Your task to perform on an android device: clear all cookies in the chrome app Image 0: 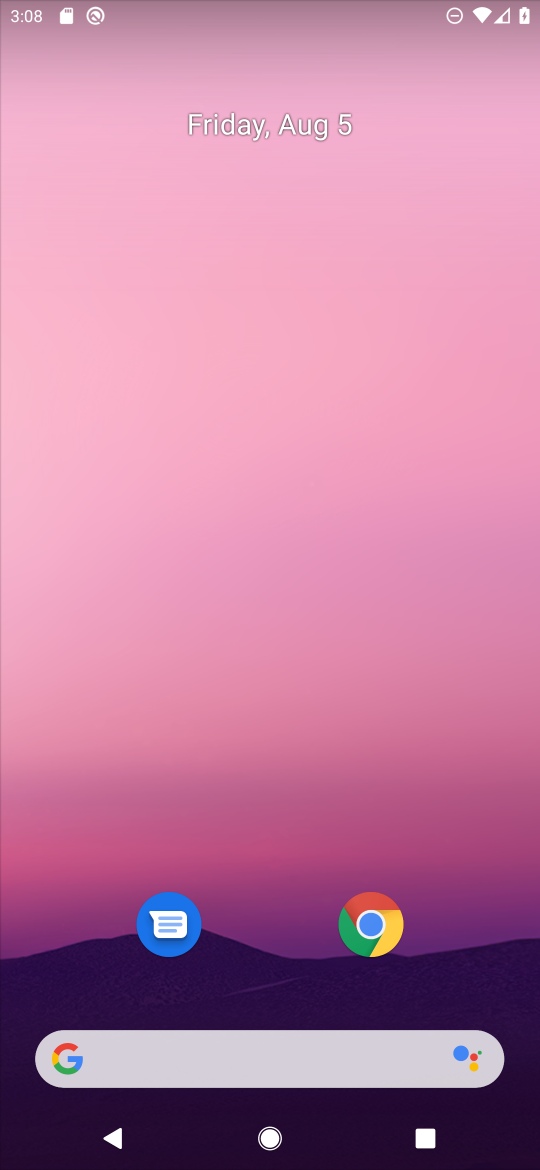
Step 0: drag from (463, 847) to (499, 168)
Your task to perform on an android device: clear all cookies in the chrome app Image 1: 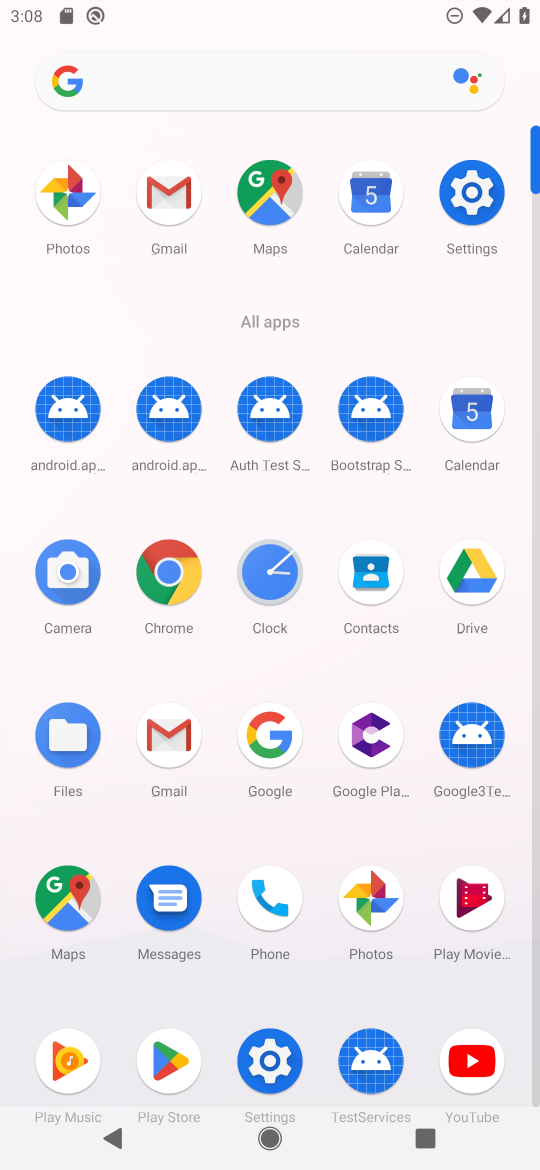
Step 1: click (165, 569)
Your task to perform on an android device: clear all cookies in the chrome app Image 2: 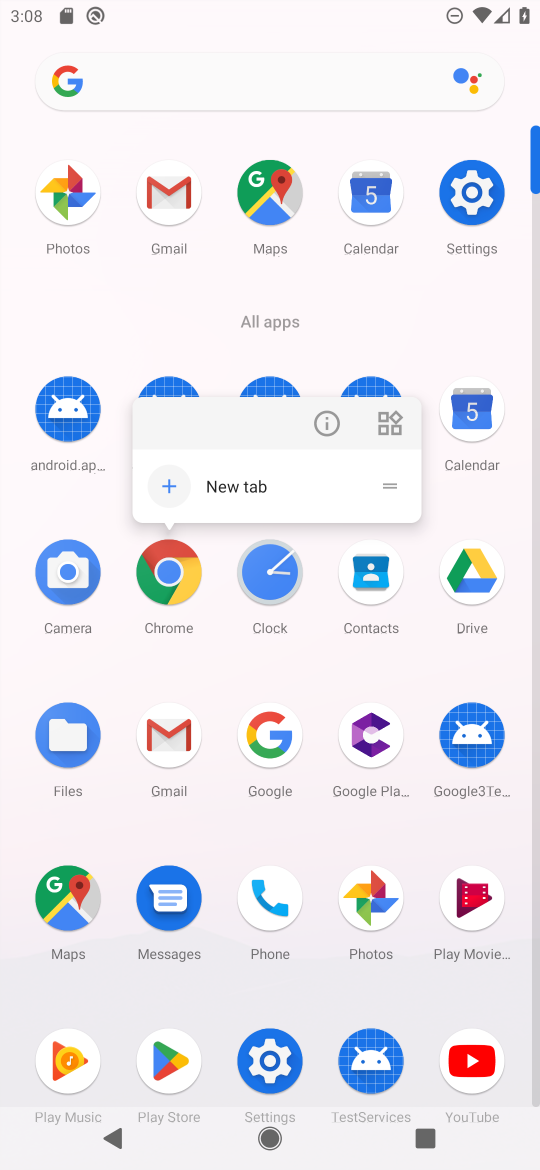
Step 2: click (164, 569)
Your task to perform on an android device: clear all cookies in the chrome app Image 3: 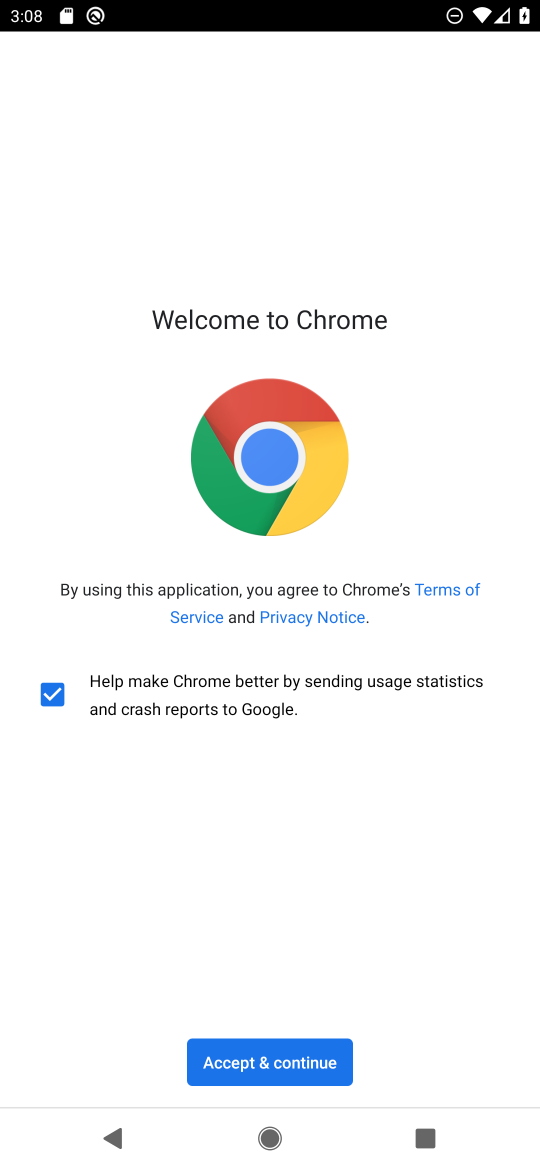
Step 3: click (265, 1066)
Your task to perform on an android device: clear all cookies in the chrome app Image 4: 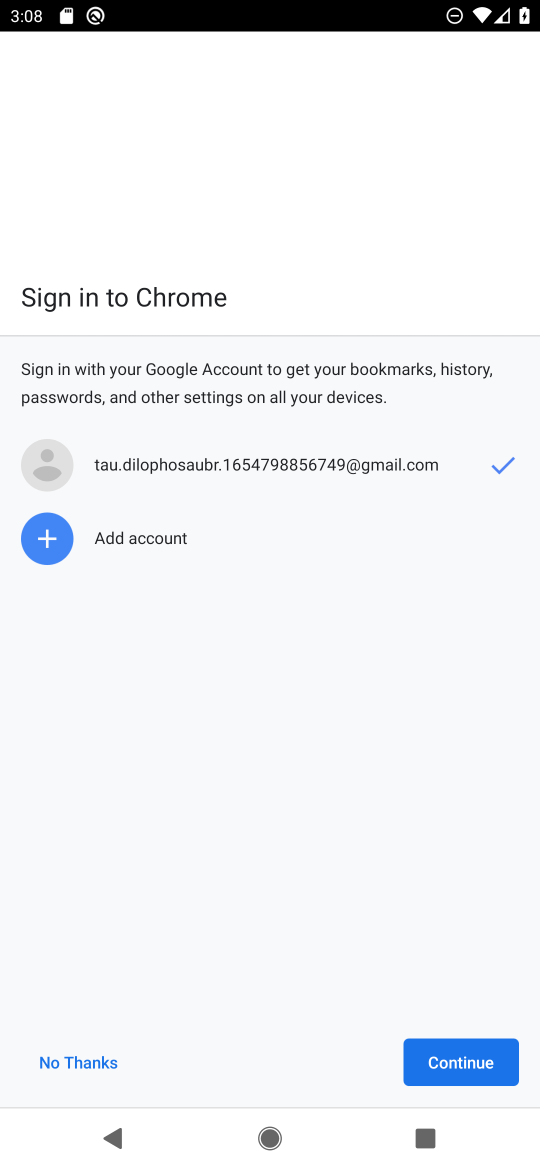
Step 4: click (500, 1058)
Your task to perform on an android device: clear all cookies in the chrome app Image 5: 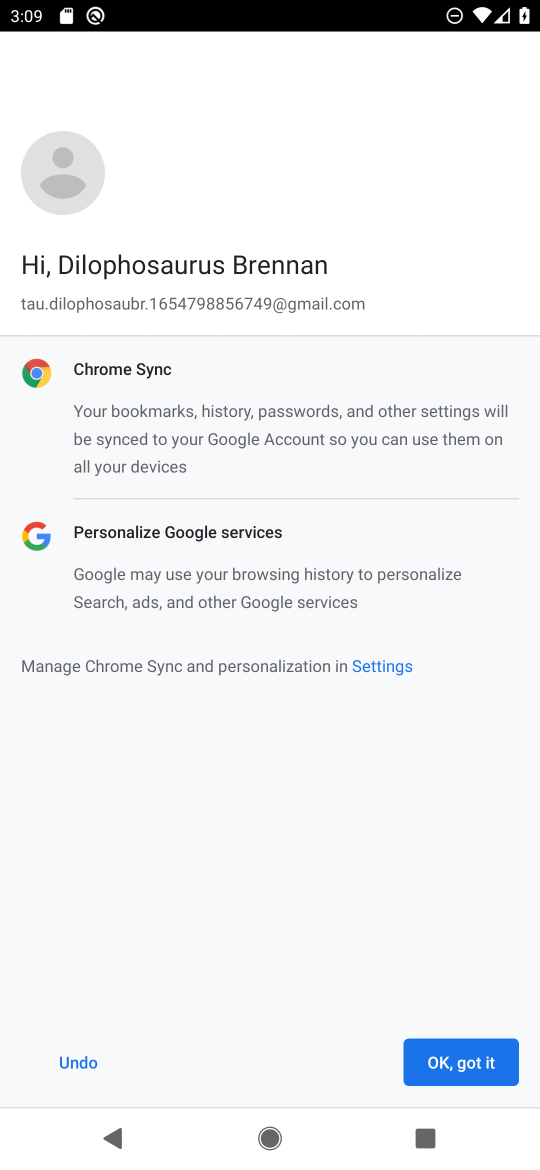
Step 5: click (500, 1058)
Your task to perform on an android device: clear all cookies in the chrome app Image 6: 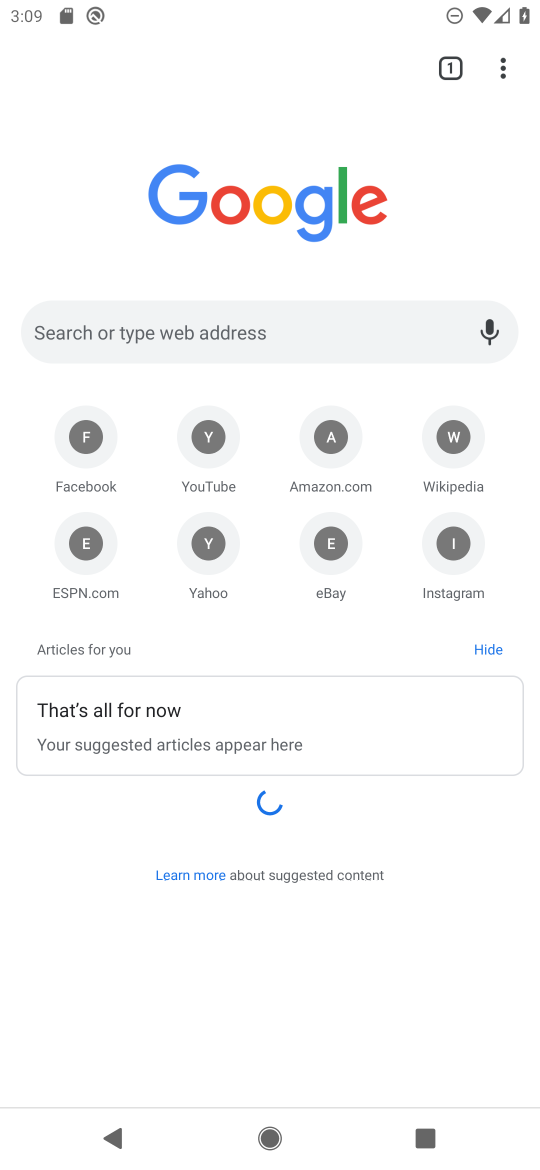
Step 6: drag from (501, 60) to (245, 379)
Your task to perform on an android device: clear all cookies in the chrome app Image 7: 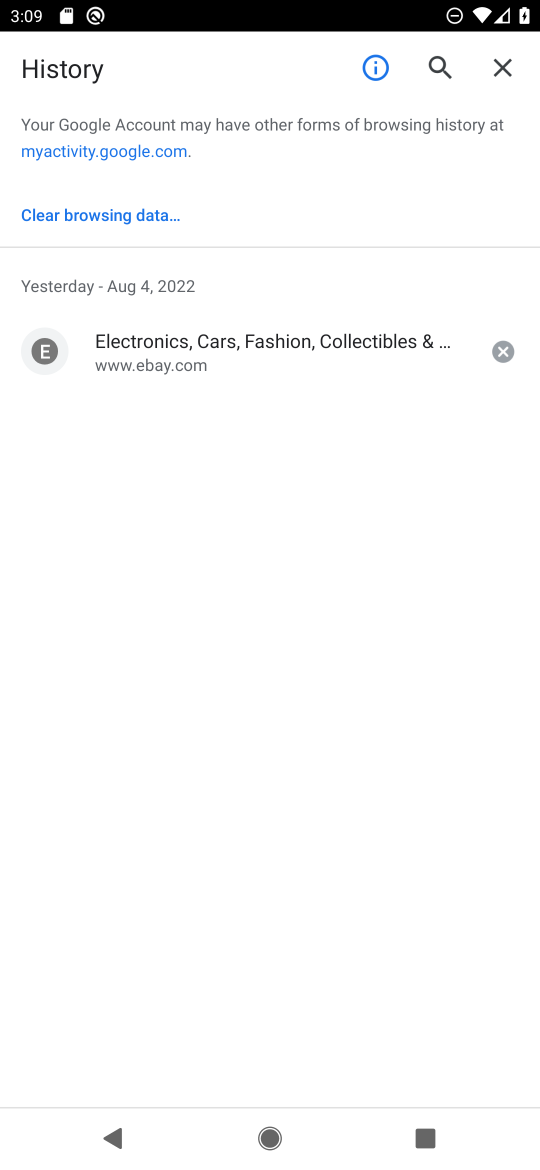
Step 7: click (127, 213)
Your task to perform on an android device: clear all cookies in the chrome app Image 8: 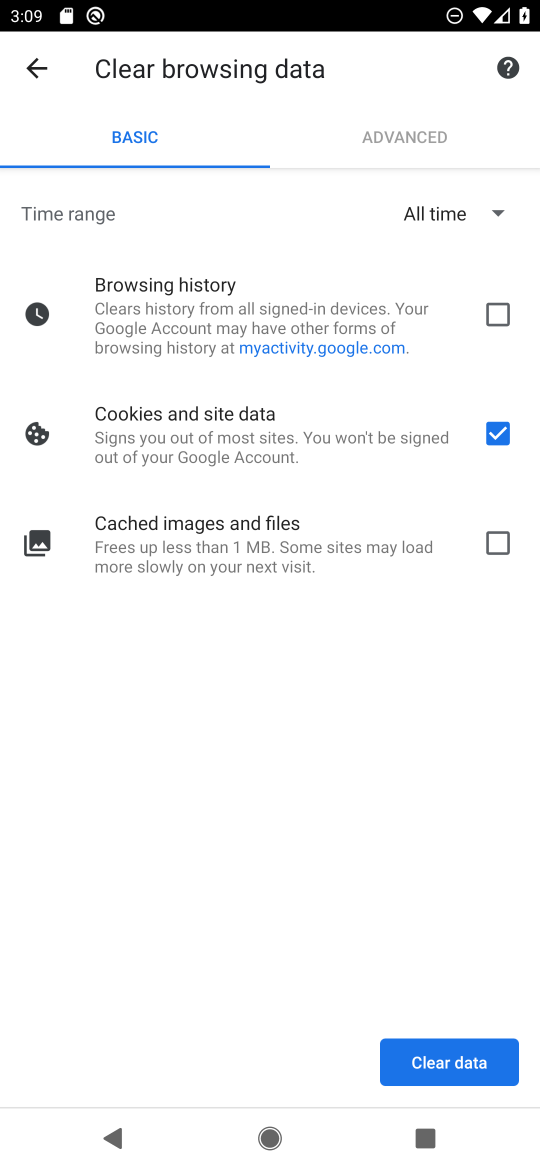
Step 8: click (506, 312)
Your task to perform on an android device: clear all cookies in the chrome app Image 9: 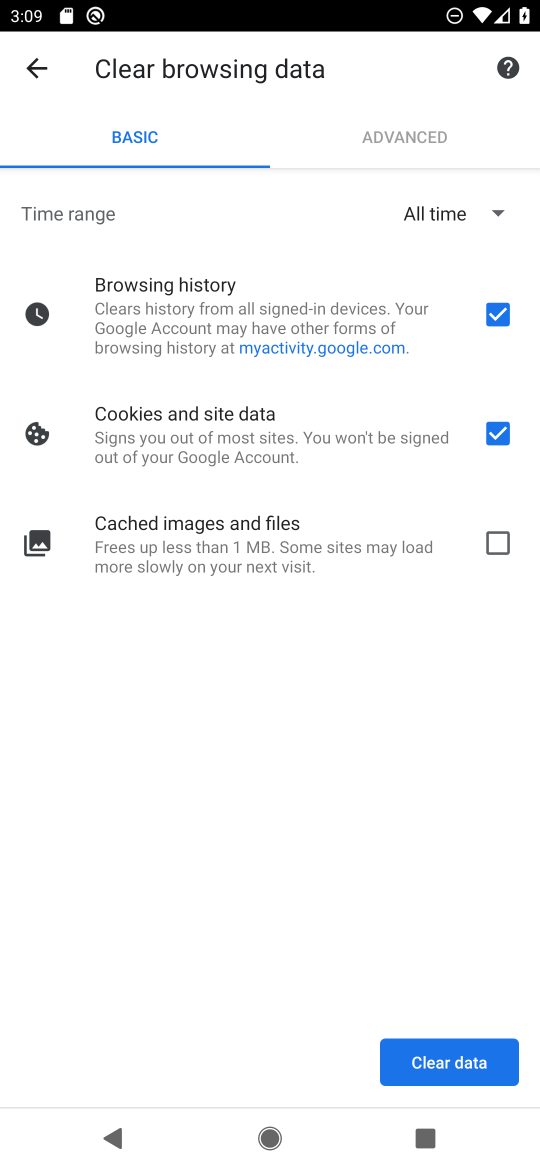
Step 9: click (503, 311)
Your task to perform on an android device: clear all cookies in the chrome app Image 10: 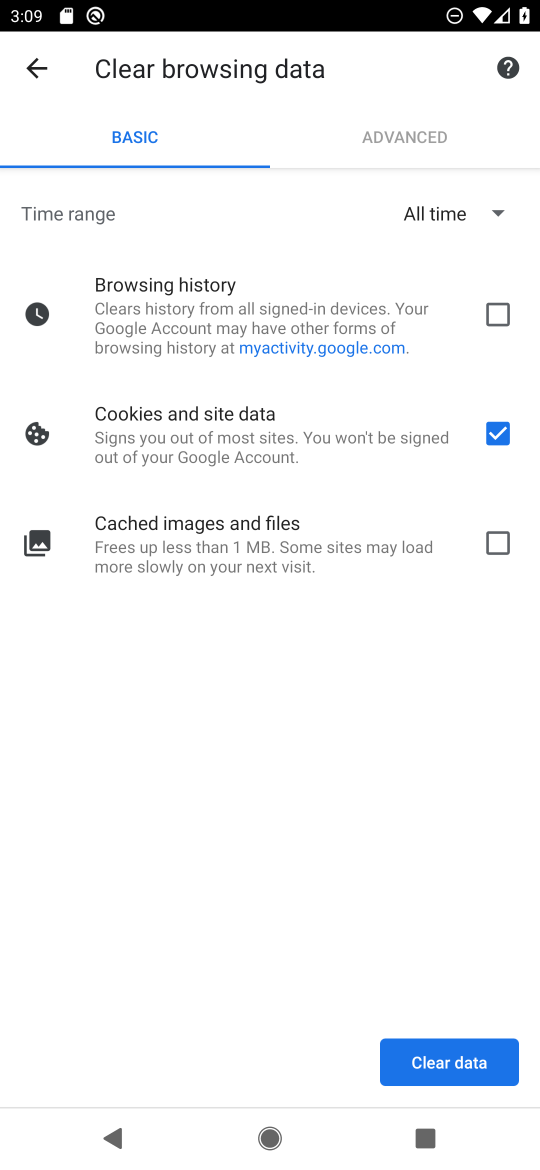
Step 10: click (484, 1062)
Your task to perform on an android device: clear all cookies in the chrome app Image 11: 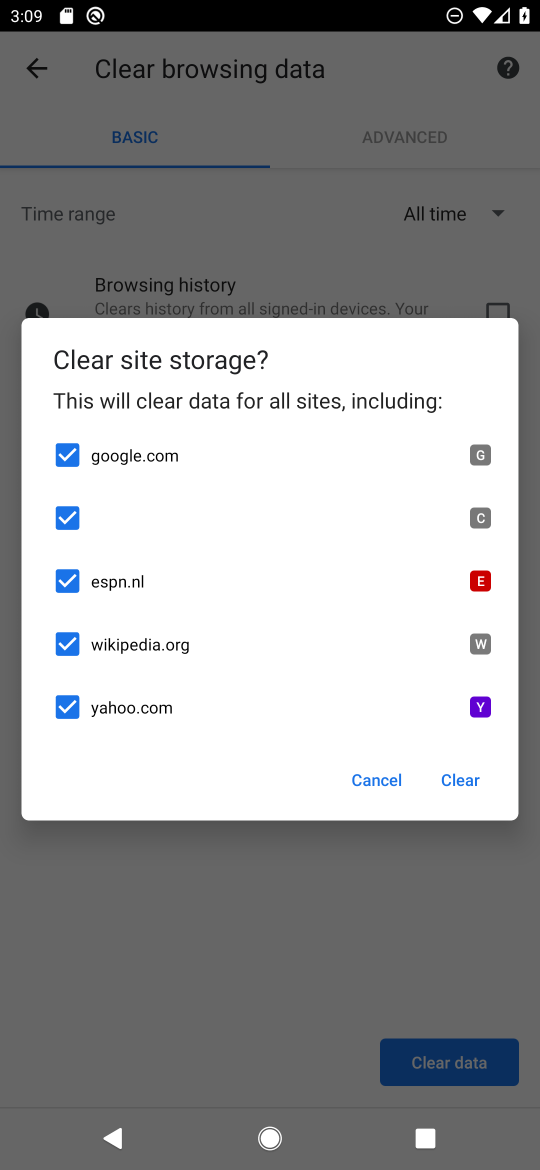
Step 11: click (470, 783)
Your task to perform on an android device: clear all cookies in the chrome app Image 12: 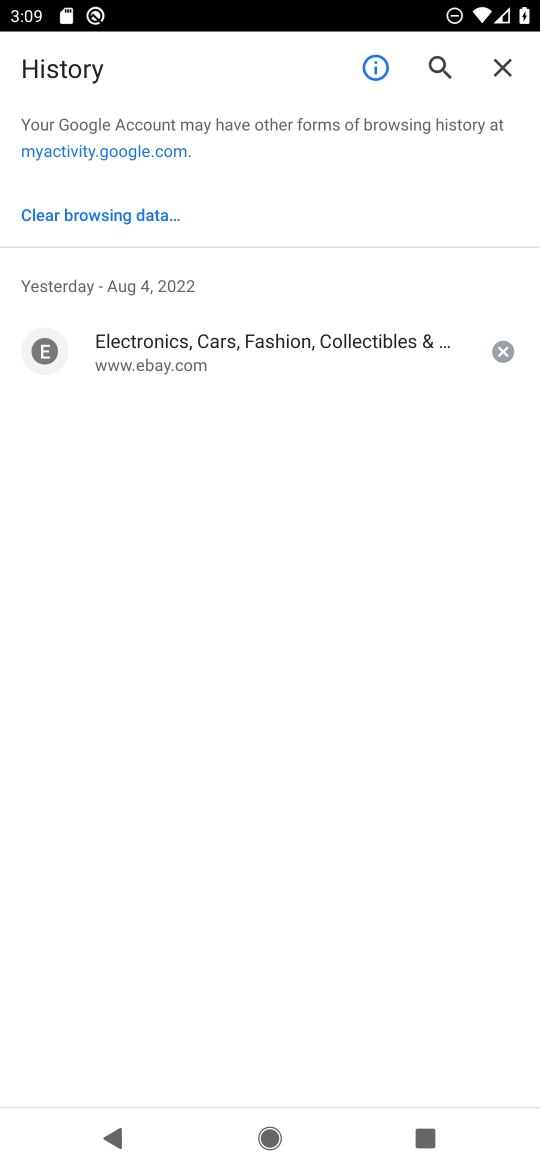
Step 12: task complete